Your task to perform on an android device: turn off improve location accuracy Image 0: 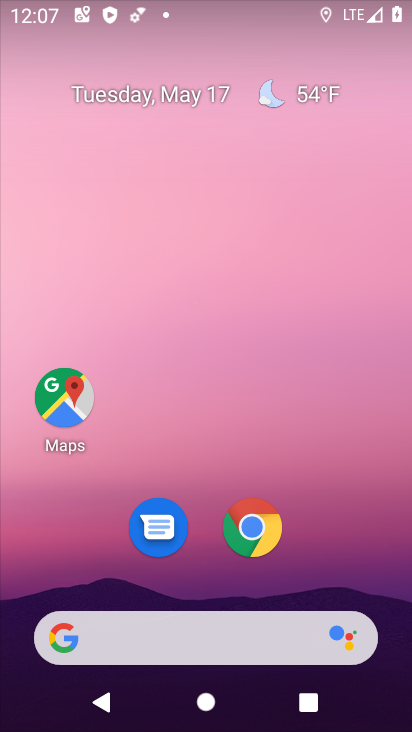
Step 0: drag from (275, 657) to (219, 174)
Your task to perform on an android device: turn off improve location accuracy Image 1: 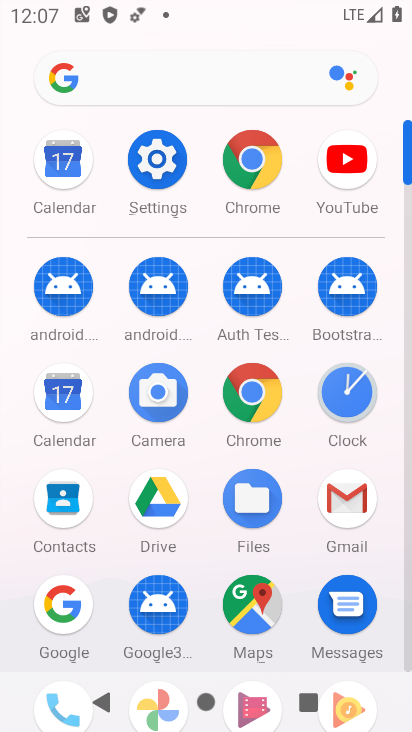
Step 1: click (154, 170)
Your task to perform on an android device: turn off improve location accuracy Image 2: 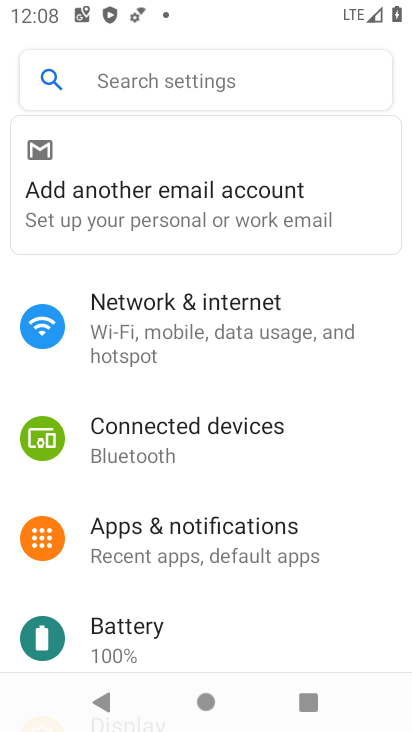
Step 2: click (157, 79)
Your task to perform on an android device: turn off improve location accuracy Image 3: 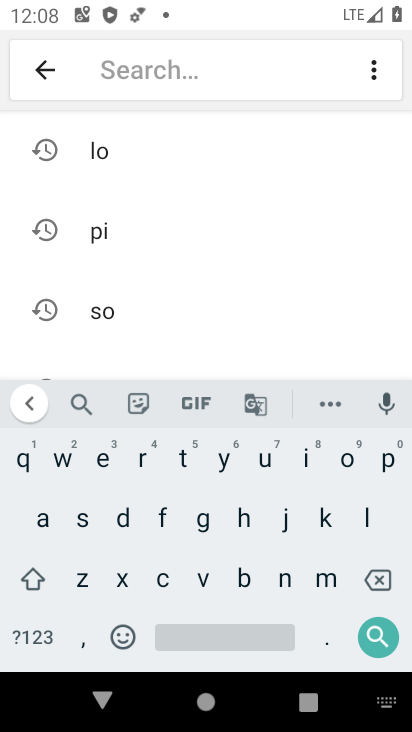
Step 3: click (157, 153)
Your task to perform on an android device: turn off improve location accuracy Image 4: 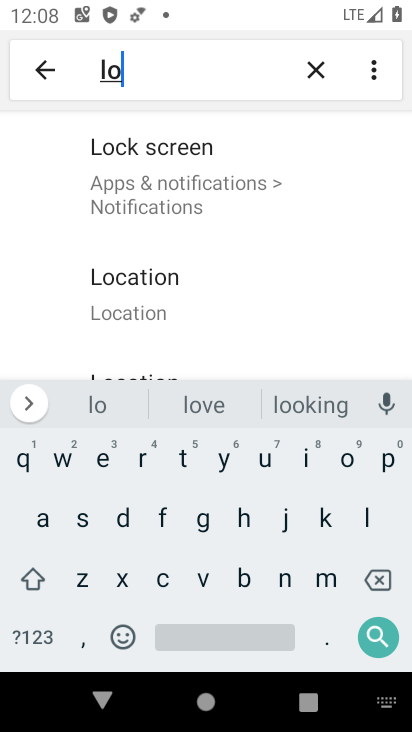
Step 4: click (110, 291)
Your task to perform on an android device: turn off improve location accuracy Image 5: 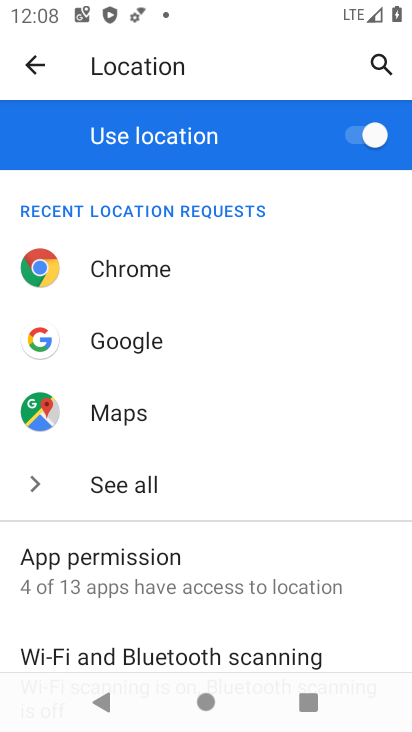
Step 5: click (361, 131)
Your task to perform on an android device: turn off improve location accuracy Image 6: 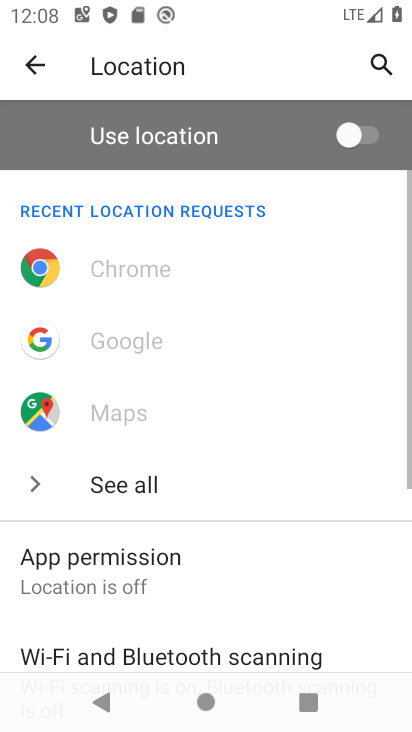
Step 6: task complete